Your task to perform on an android device: open device folders in google photos Image 0: 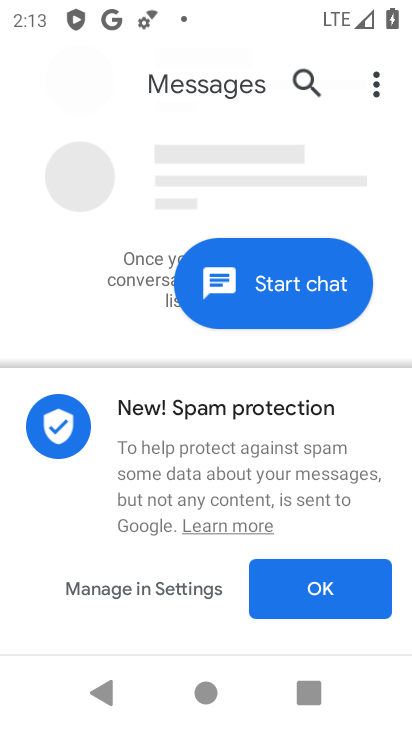
Step 0: press home button
Your task to perform on an android device: open device folders in google photos Image 1: 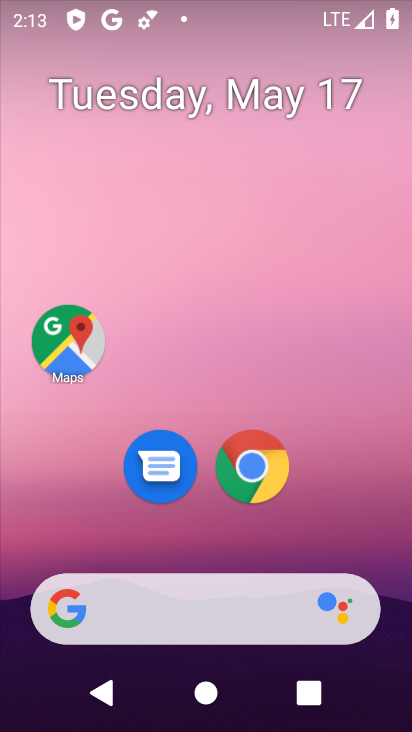
Step 1: drag from (357, 517) to (338, 132)
Your task to perform on an android device: open device folders in google photos Image 2: 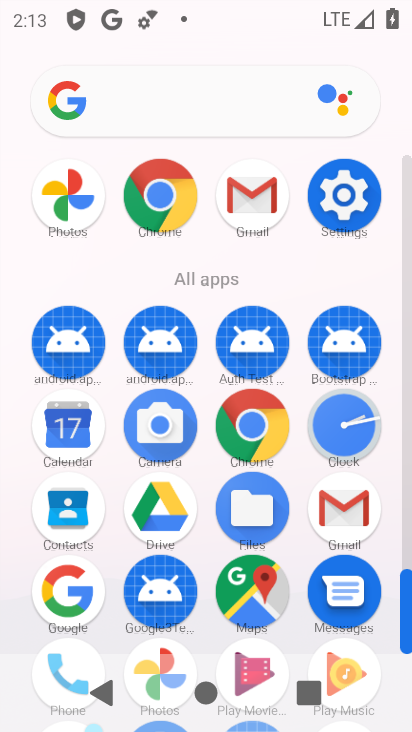
Step 2: click (156, 655)
Your task to perform on an android device: open device folders in google photos Image 3: 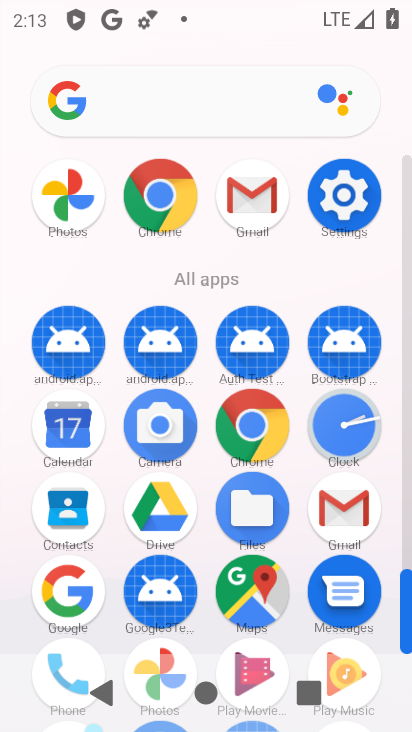
Step 3: click (149, 654)
Your task to perform on an android device: open device folders in google photos Image 4: 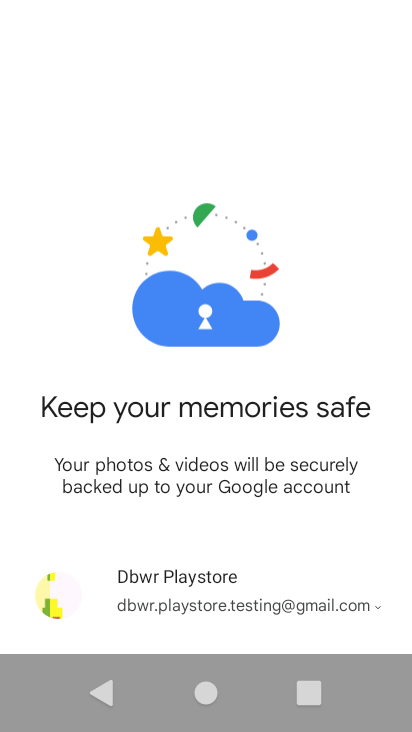
Step 4: drag from (225, 519) to (236, 172)
Your task to perform on an android device: open device folders in google photos Image 5: 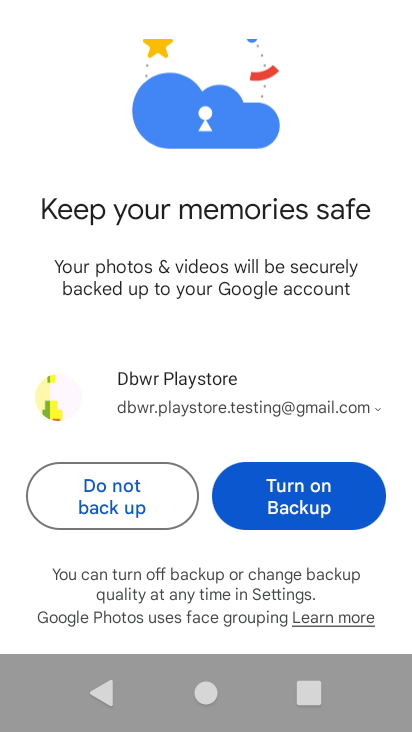
Step 5: click (292, 507)
Your task to perform on an android device: open device folders in google photos Image 6: 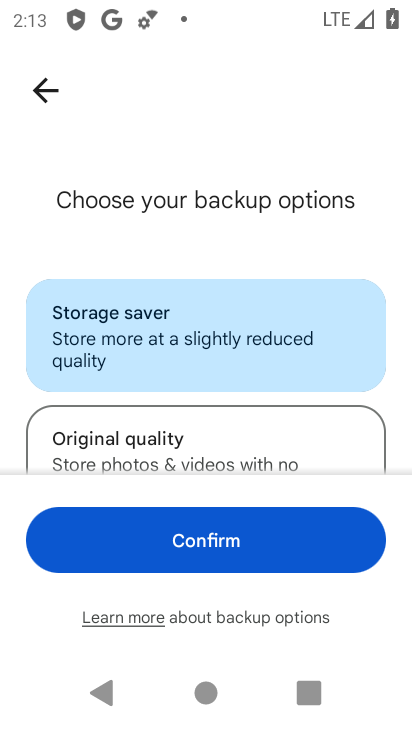
Step 6: click (212, 541)
Your task to perform on an android device: open device folders in google photos Image 7: 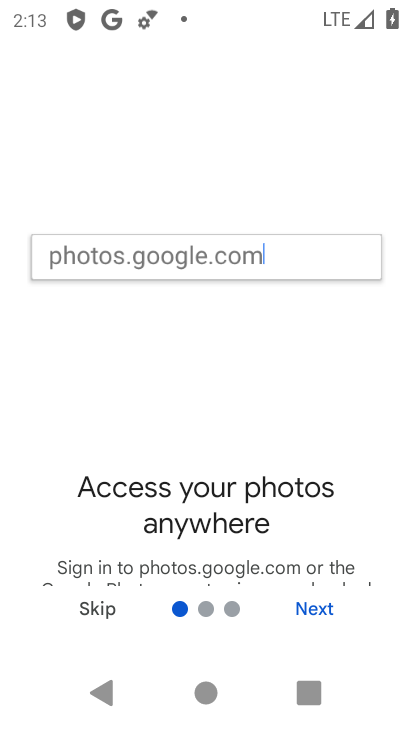
Step 7: click (322, 611)
Your task to perform on an android device: open device folders in google photos Image 8: 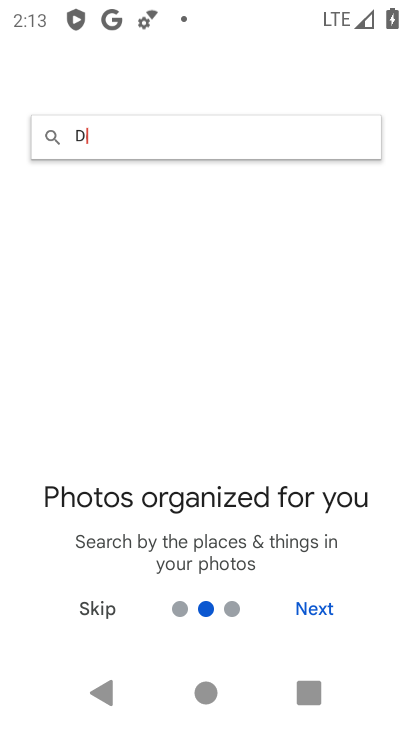
Step 8: click (319, 613)
Your task to perform on an android device: open device folders in google photos Image 9: 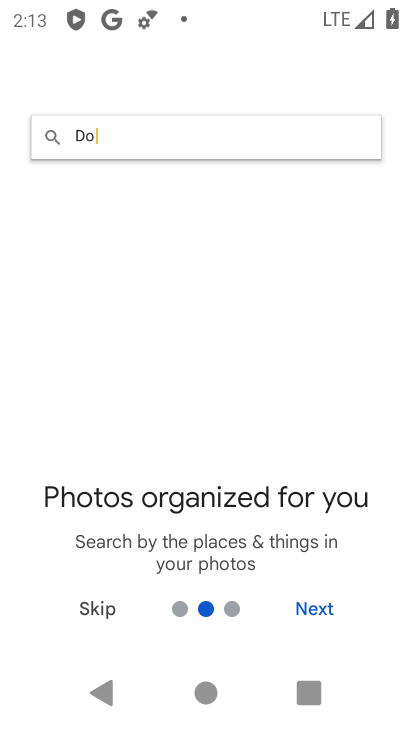
Step 9: click (318, 612)
Your task to perform on an android device: open device folders in google photos Image 10: 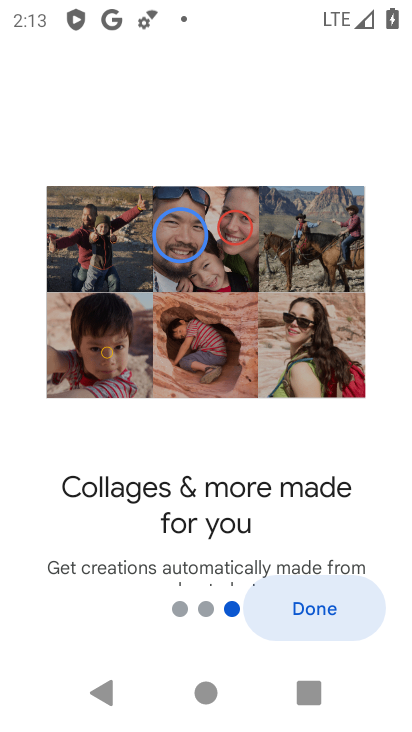
Step 10: click (316, 611)
Your task to perform on an android device: open device folders in google photos Image 11: 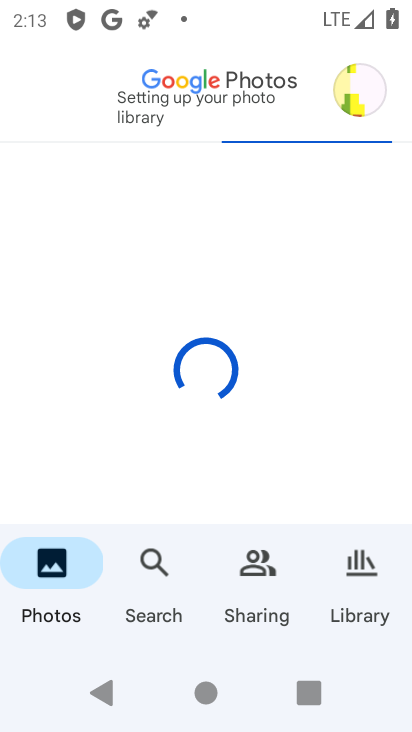
Step 11: click (371, 85)
Your task to perform on an android device: open device folders in google photos Image 12: 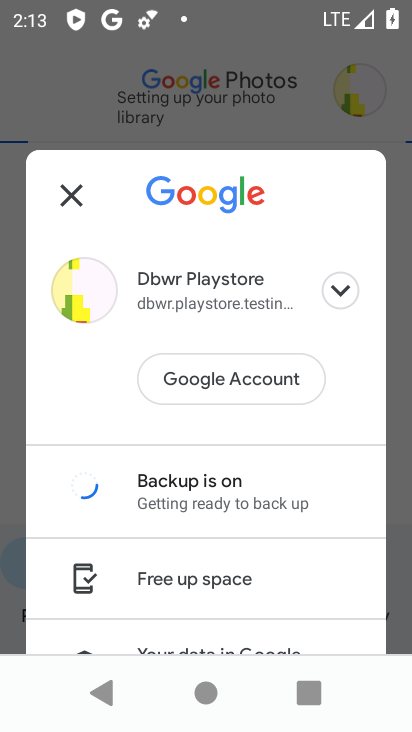
Step 12: drag from (52, 201) to (348, 616)
Your task to perform on an android device: open device folders in google photos Image 13: 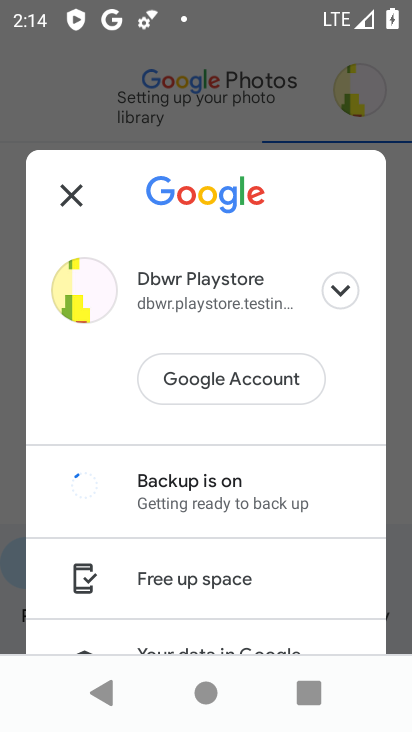
Step 13: drag from (276, 591) to (306, 218)
Your task to perform on an android device: open device folders in google photos Image 14: 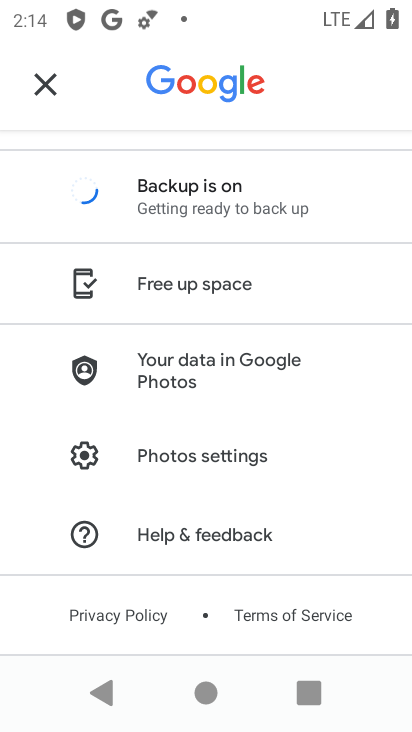
Step 14: click (203, 455)
Your task to perform on an android device: open device folders in google photos Image 15: 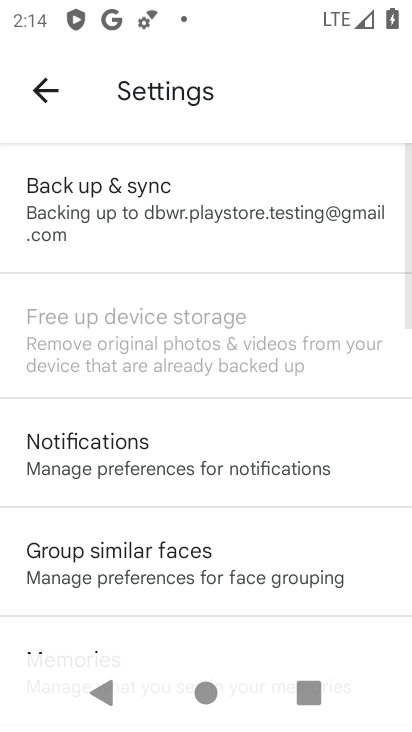
Step 15: click (154, 185)
Your task to perform on an android device: open device folders in google photos Image 16: 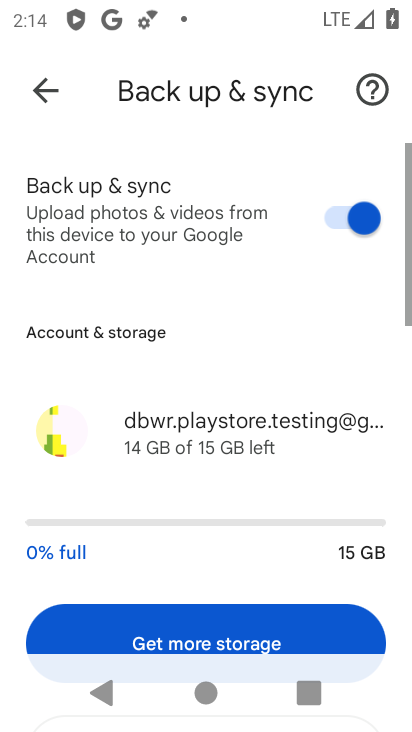
Step 16: drag from (207, 556) to (253, 34)
Your task to perform on an android device: open device folders in google photos Image 17: 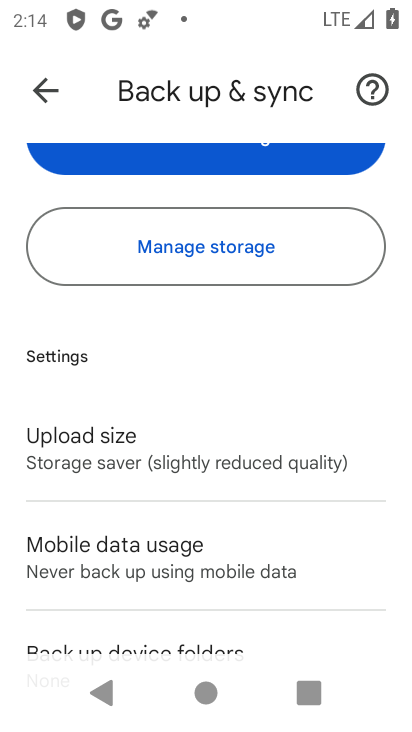
Step 17: drag from (174, 563) to (245, 180)
Your task to perform on an android device: open device folders in google photos Image 18: 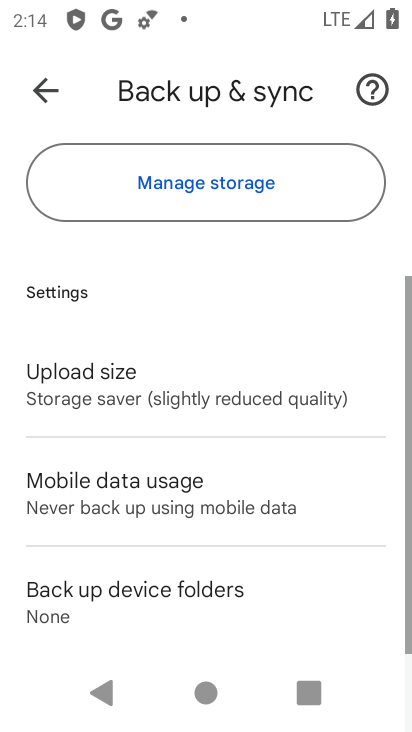
Step 18: click (168, 584)
Your task to perform on an android device: open device folders in google photos Image 19: 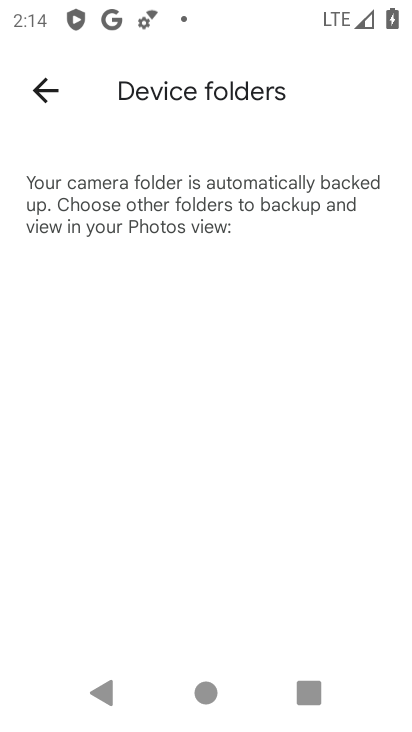
Step 19: task complete